Your task to perform on an android device: Install the Lyft app Image 0: 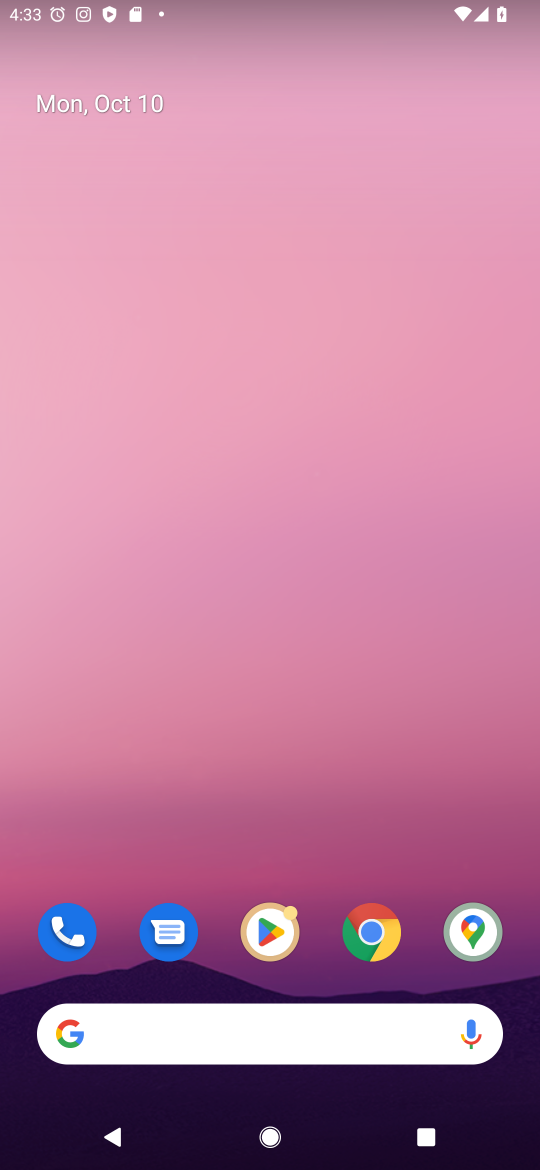
Step 0: press home button
Your task to perform on an android device: Install the Lyft app Image 1: 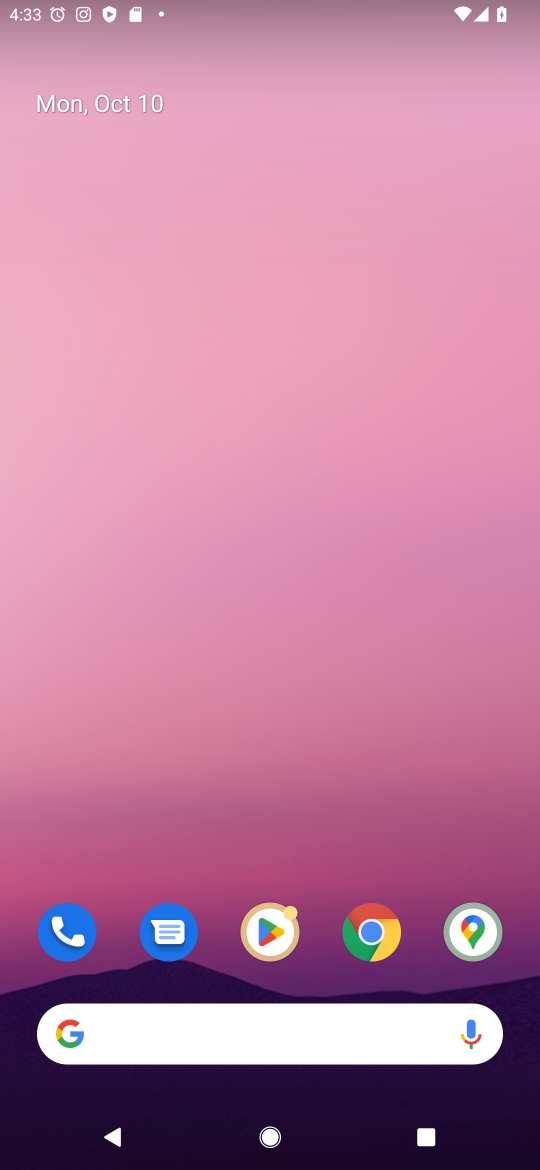
Step 1: drag from (495, 825) to (501, 85)
Your task to perform on an android device: Install the Lyft app Image 2: 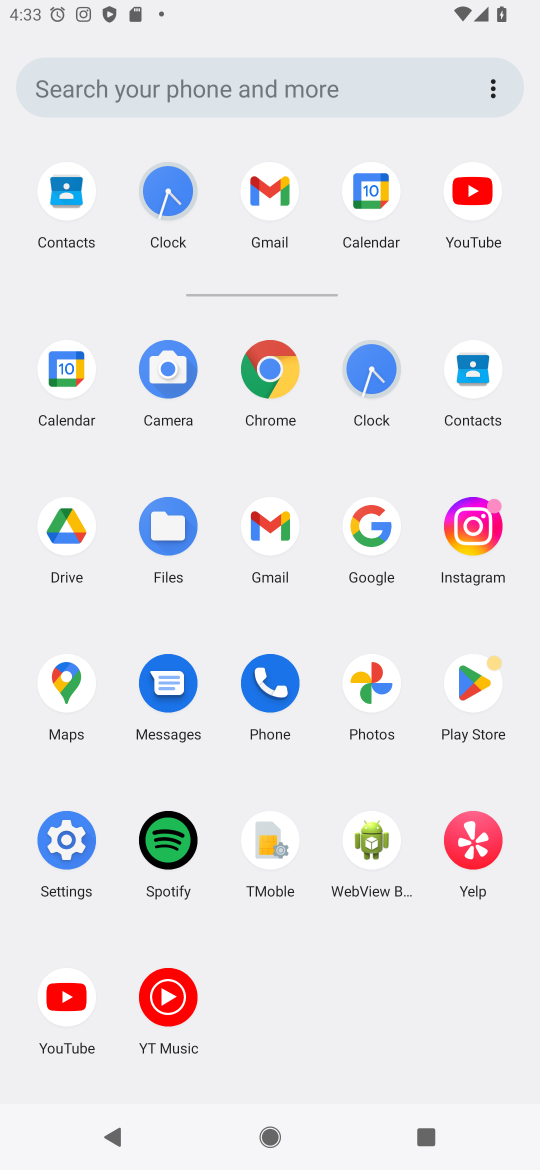
Step 2: click (467, 689)
Your task to perform on an android device: Install the Lyft app Image 3: 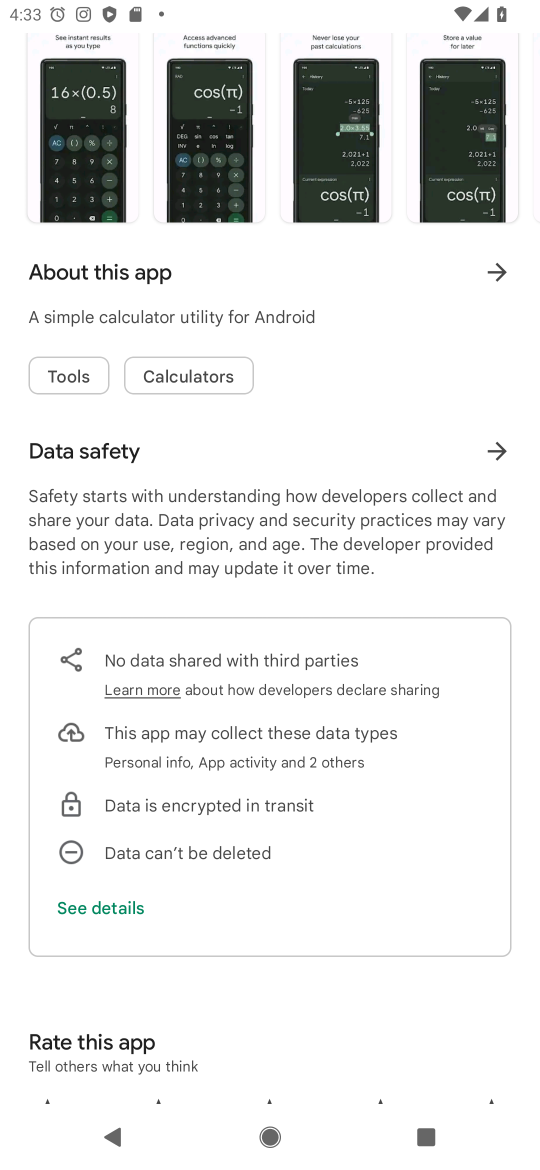
Step 3: press back button
Your task to perform on an android device: Install the Lyft app Image 4: 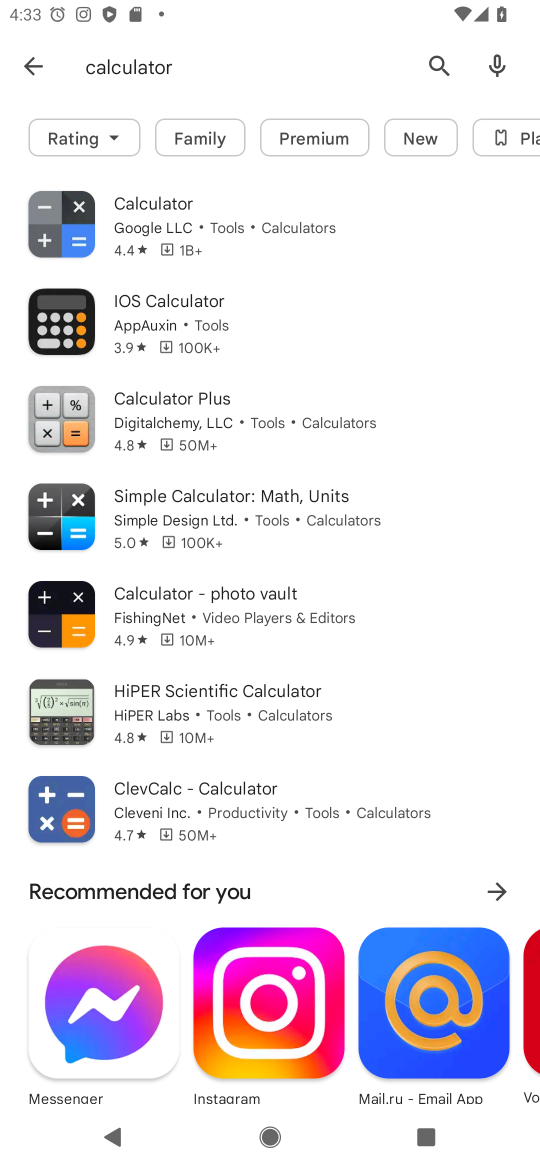
Step 4: press back button
Your task to perform on an android device: Install the Lyft app Image 5: 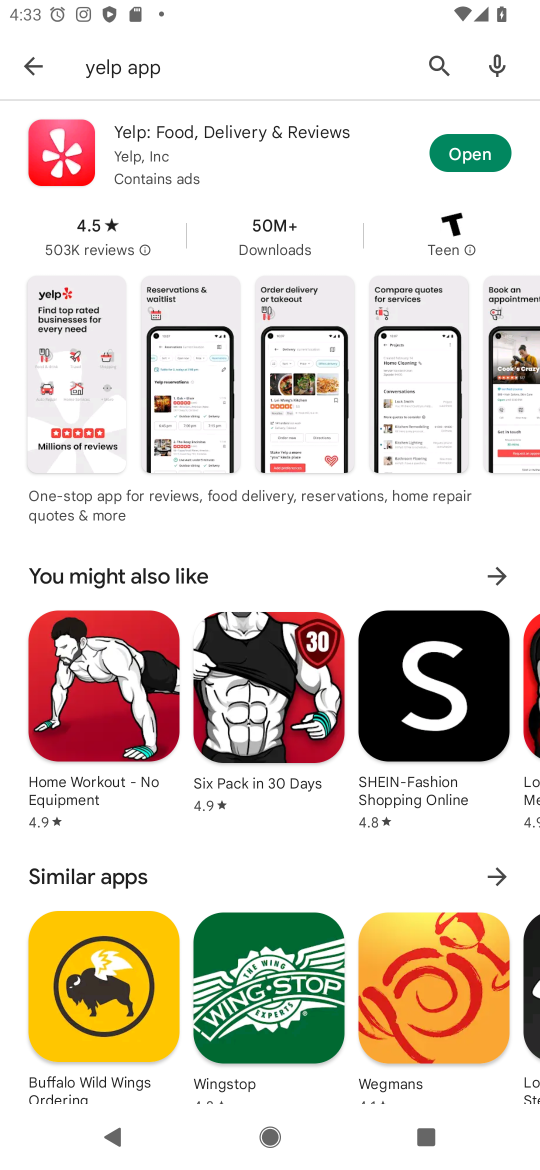
Step 5: press back button
Your task to perform on an android device: Install the Lyft app Image 6: 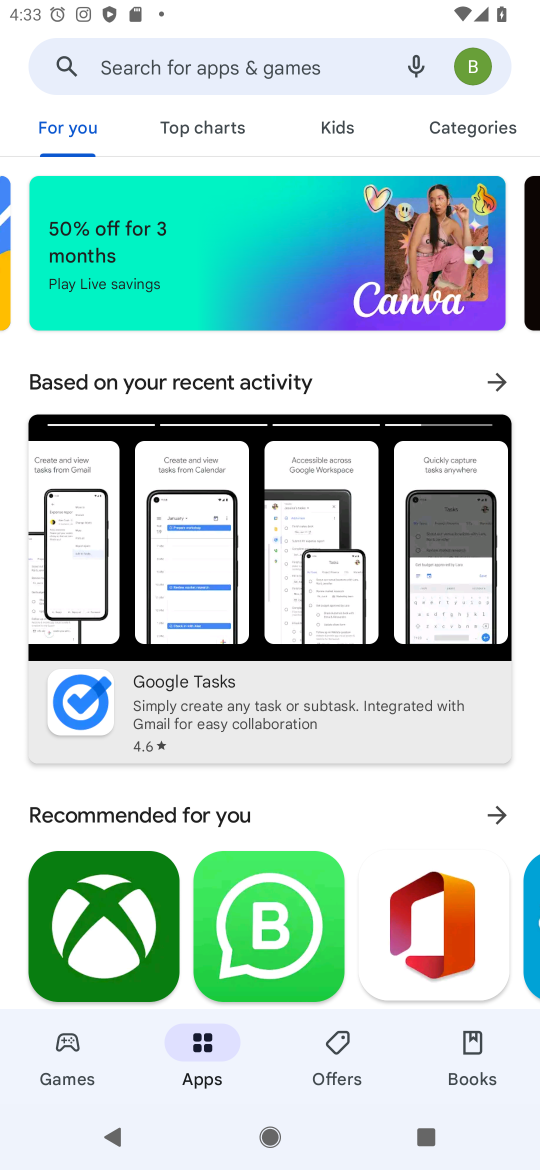
Step 6: click (272, 56)
Your task to perform on an android device: Install the Lyft app Image 7: 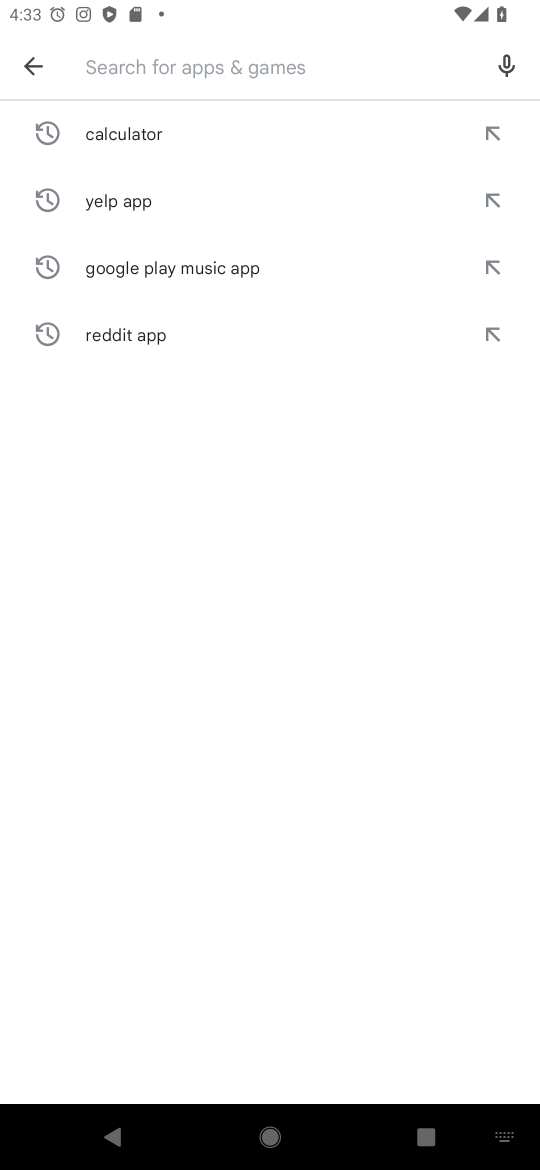
Step 7: type "lyft app"
Your task to perform on an android device: Install the Lyft app Image 8: 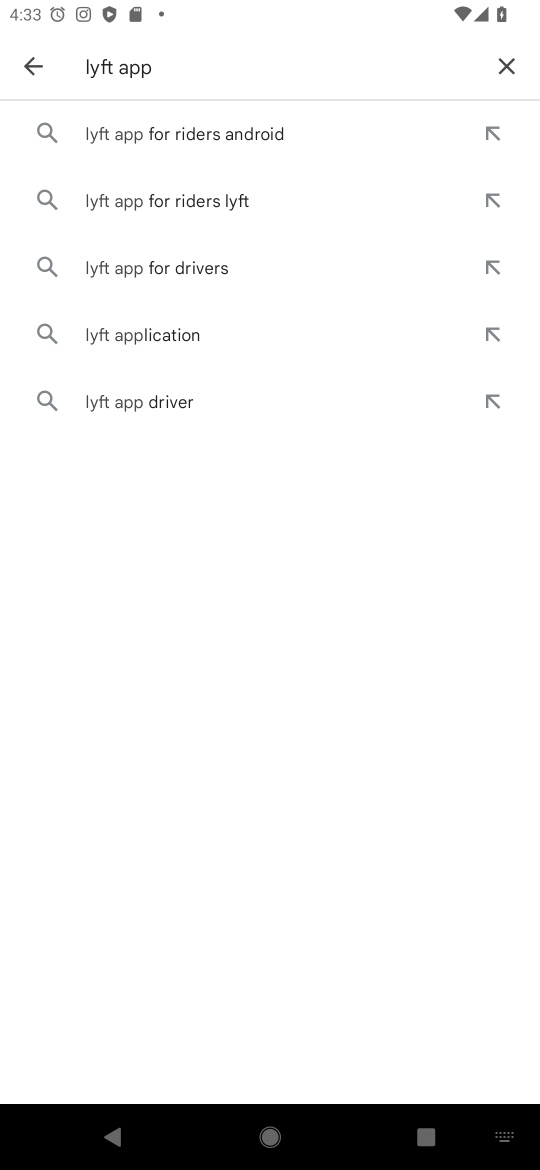
Step 8: press enter
Your task to perform on an android device: Install the Lyft app Image 9: 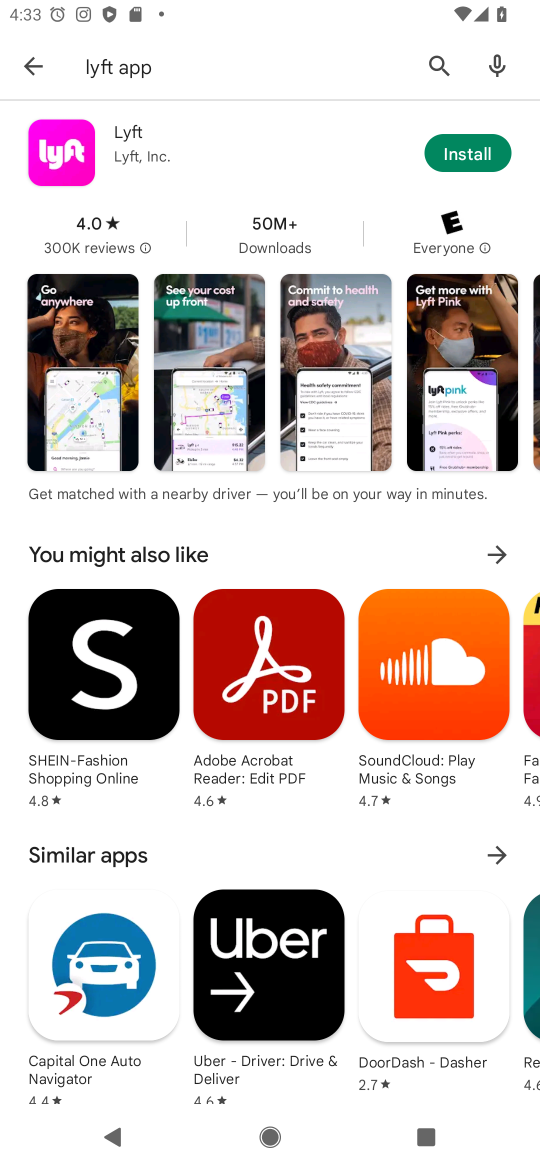
Step 9: click (464, 157)
Your task to perform on an android device: Install the Lyft app Image 10: 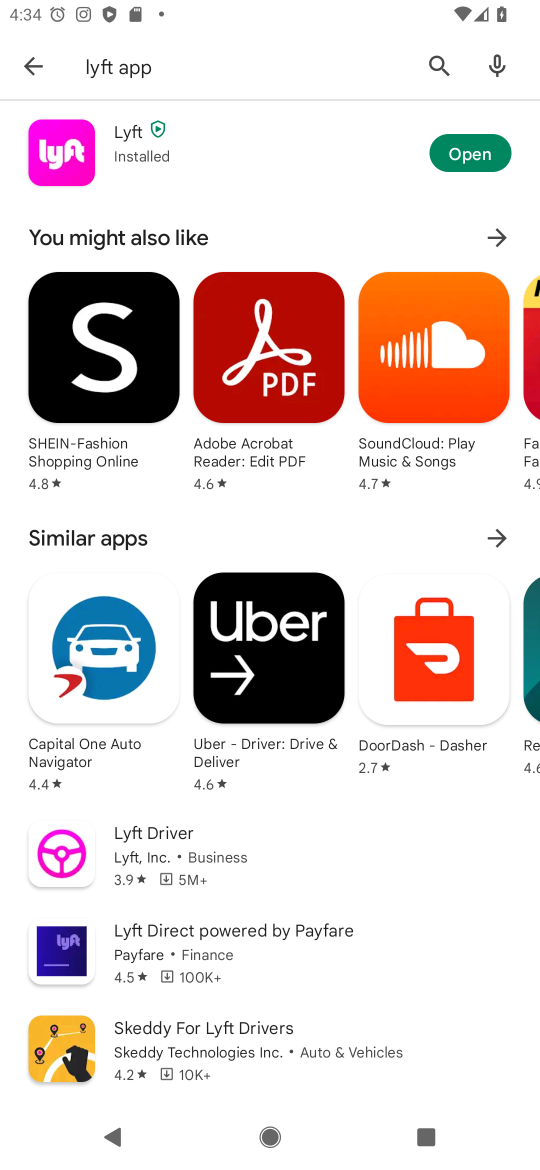
Step 10: task complete